Your task to perform on an android device: turn off location history Image 0: 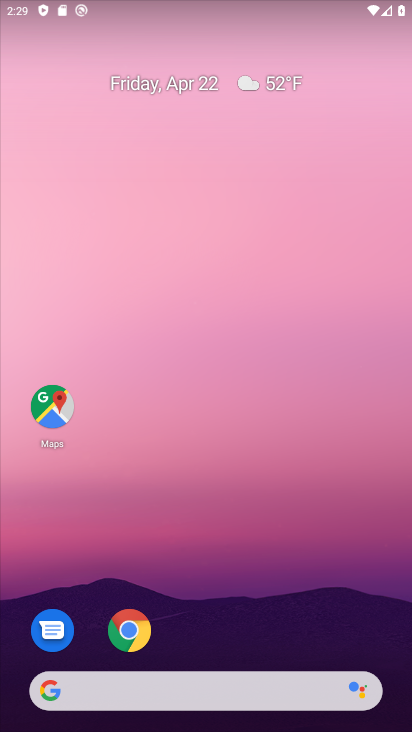
Step 0: drag from (359, 607) to (298, 154)
Your task to perform on an android device: turn off location history Image 1: 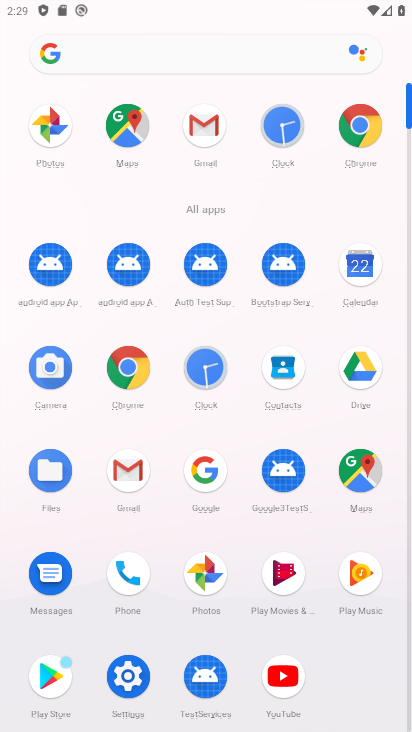
Step 1: click (358, 464)
Your task to perform on an android device: turn off location history Image 2: 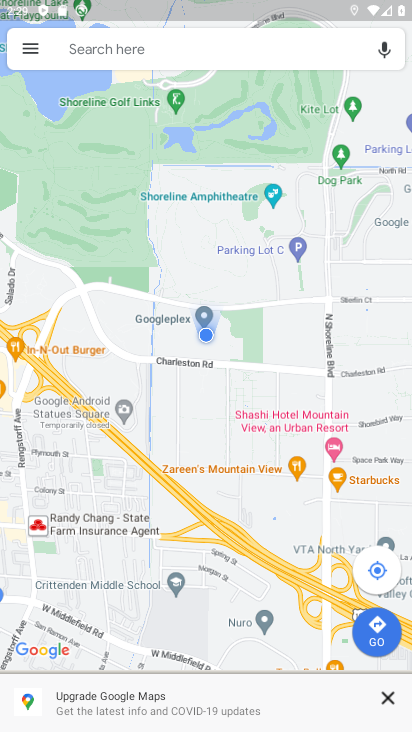
Step 2: click (25, 45)
Your task to perform on an android device: turn off location history Image 3: 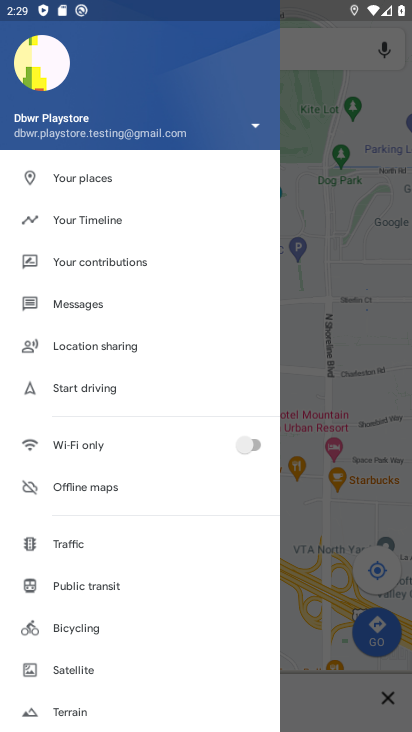
Step 3: drag from (190, 496) to (165, 285)
Your task to perform on an android device: turn off location history Image 4: 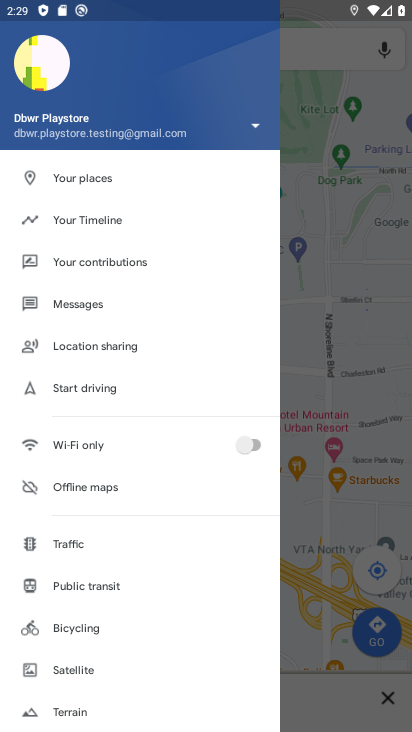
Step 4: drag from (113, 593) to (136, 324)
Your task to perform on an android device: turn off location history Image 5: 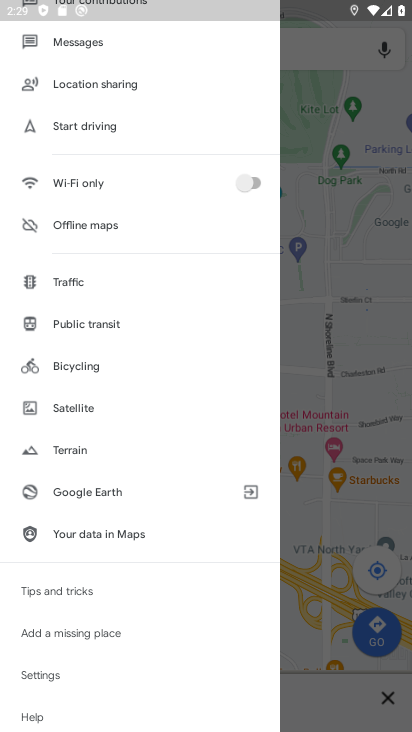
Step 5: click (41, 665)
Your task to perform on an android device: turn off location history Image 6: 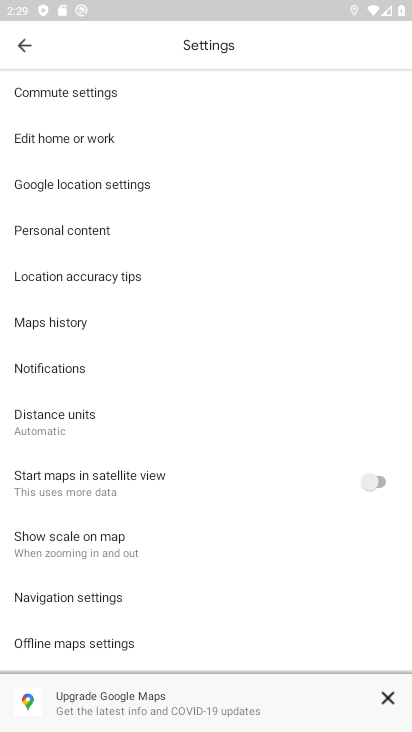
Step 6: click (51, 225)
Your task to perform on an android device: turn off location history Image 7: 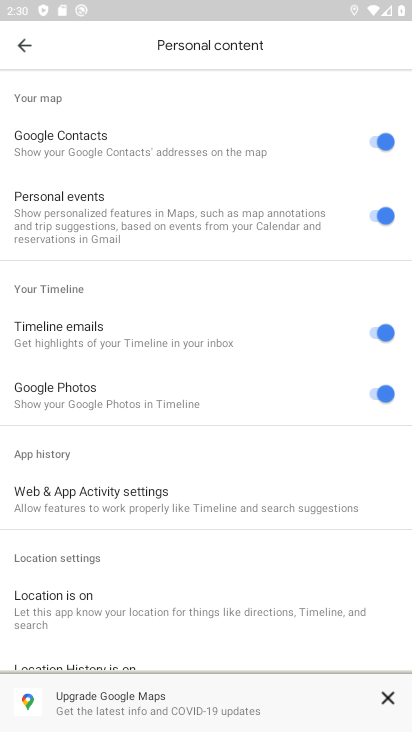
Step 7: drag from (212, 440) to (195, 113)
Your task to perform on an android device: turn off location history Image 8: 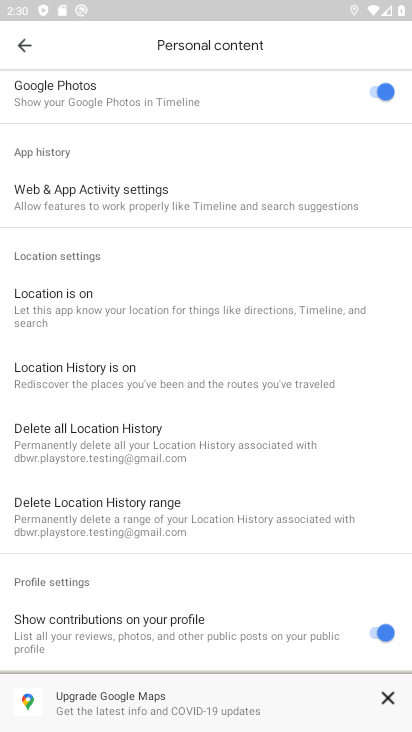
Step 8: click (66, 376)
Your task to perform on an android device: turn off location history Image 9: 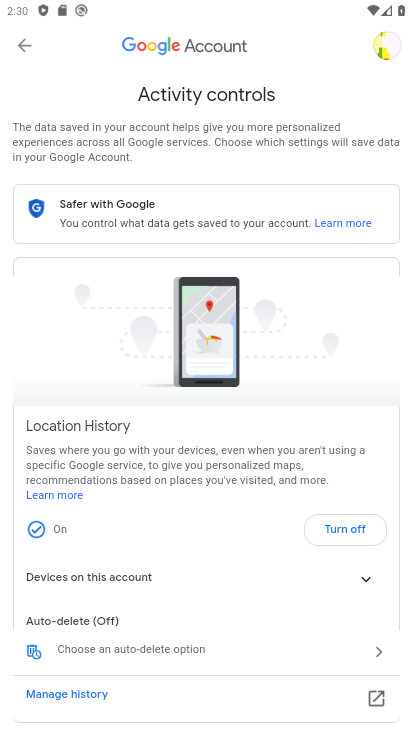
Step 9: click (334, 531)
Your task to perform on an android device: turn off location history Image 10: 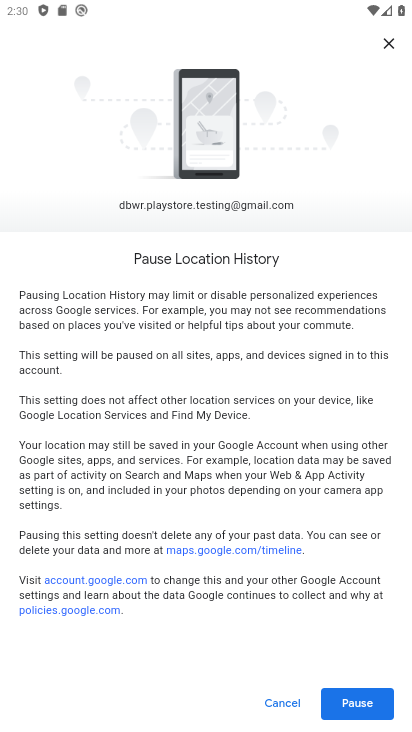
Step 10: click (350, 697)
Your task to perform on an android device: turn off location history Image 11: 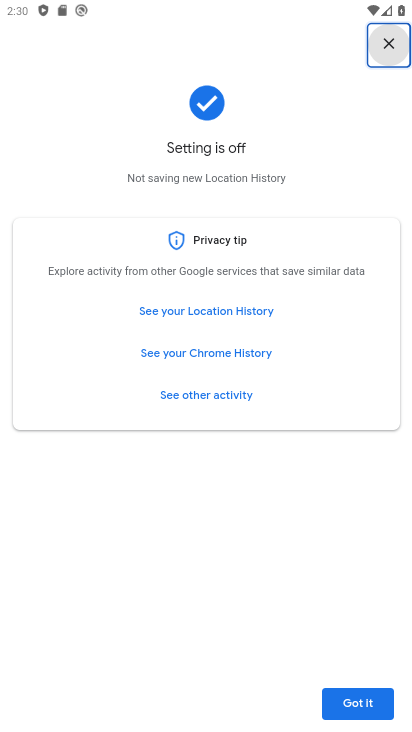
Step 11: click (350, 697)
Your task to perform on an android device: turn off location history Image 12: 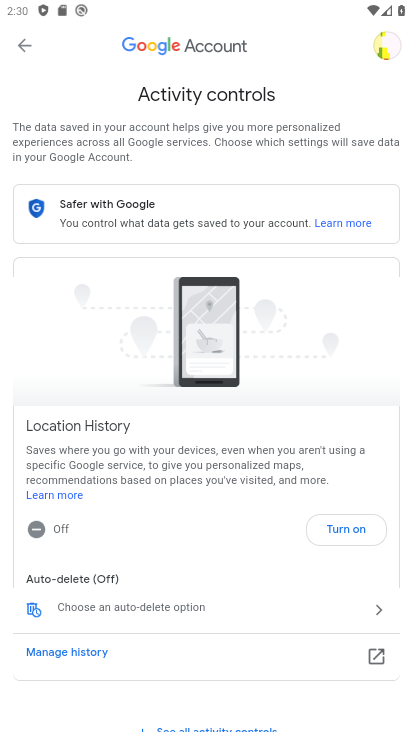
Step 12: task complete